Your task to perform on an android device: set an alarm Image 0: 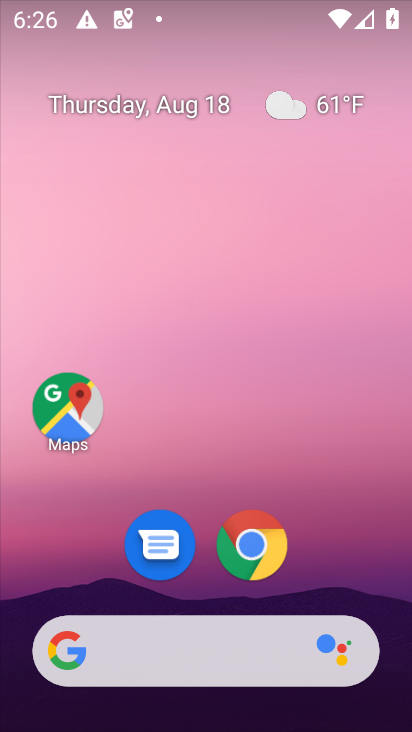
Step 0: drag from (328, 561) to (198, 115)
Your task to perform on an android device: set an alarm Image 1: 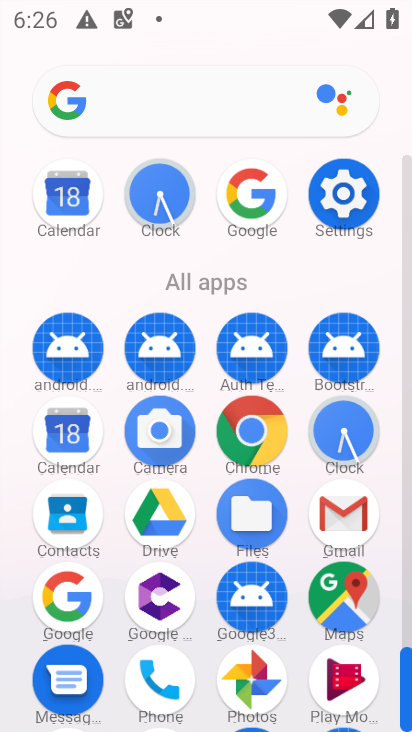
Step 1: click (163, 196)
Your task to perform on an android device: set an alarm Image 2: 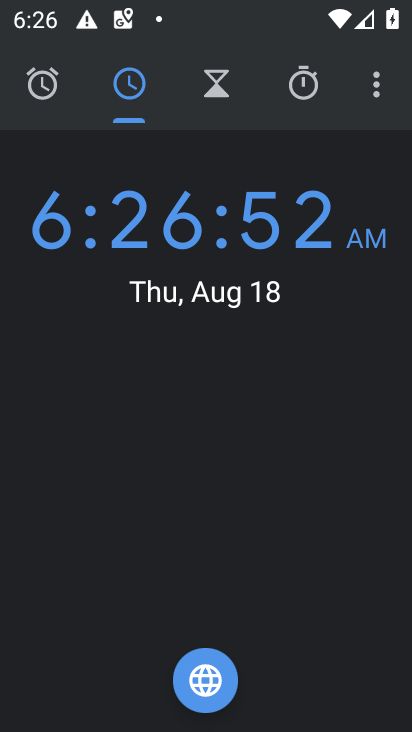
Step 2: click (38, 91)
Your task to perform on an android device: set an alarm Image 3: 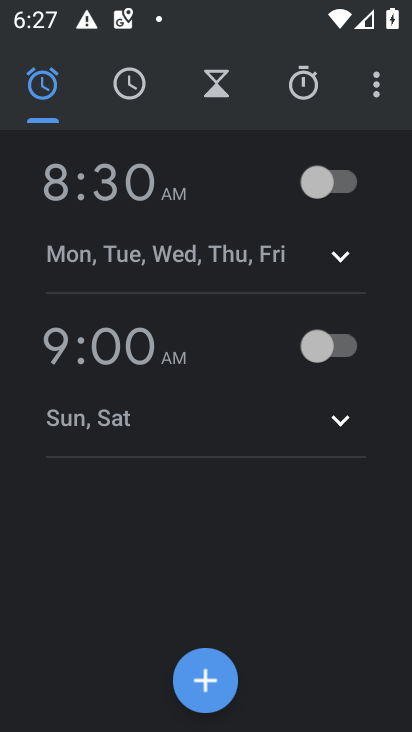
Step 3: click (203, 679)
Your task to perform on an android device: set an alarm Image 4: 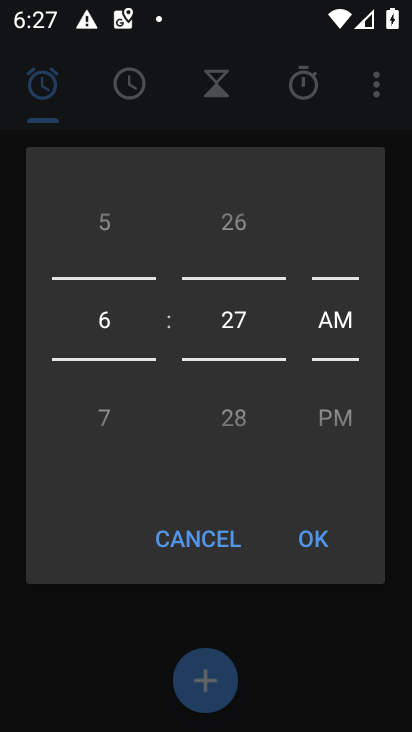
Step 4: click (310, 539)
Your task to perform on an android device: set an alarm Image 5: 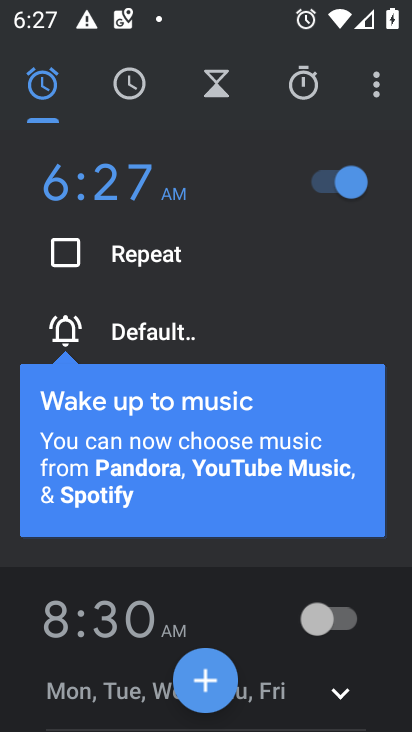
Step 5: task complete